Your task to perform on an android device: Show me the alarms in the clock app Image 0: 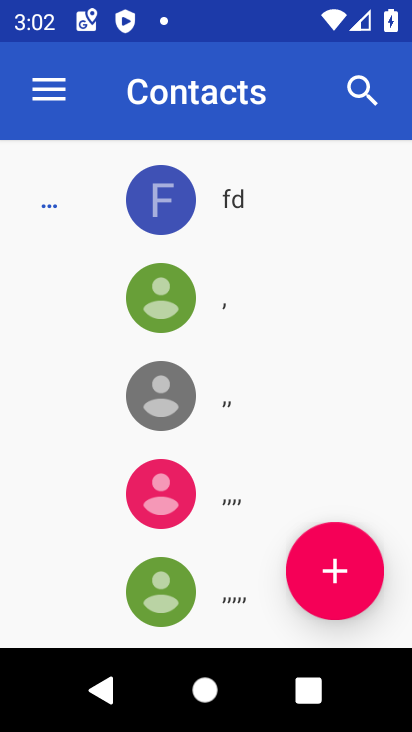
Step 0: press home button
Your task to perform on an android device: Show me the alarms in the clock app Image 1: 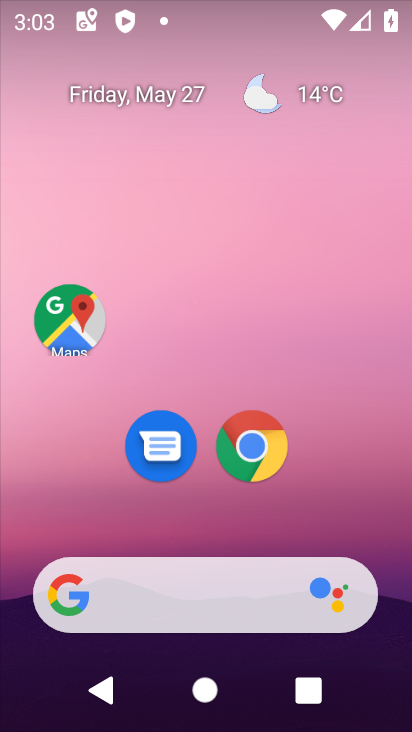
Step 1: drag from (189, 576) to (278, 143)
Your task to perform on an android device: Show me the alarms in the clock app Image 2: 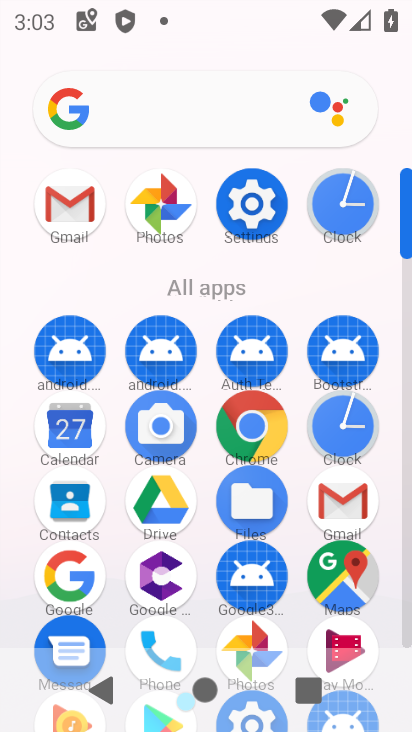
Step 2: click (334, 441)
Your task to perform on an android device: Show me the alarms in the clock app Image 3: 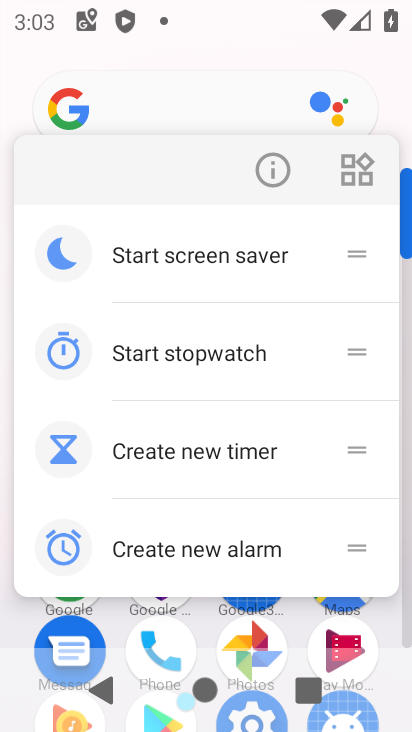
Step 3: drag from (244, 690) to (381, 149)
Your task to perform on an android device: Show me the alarms in the clock app Image 4: 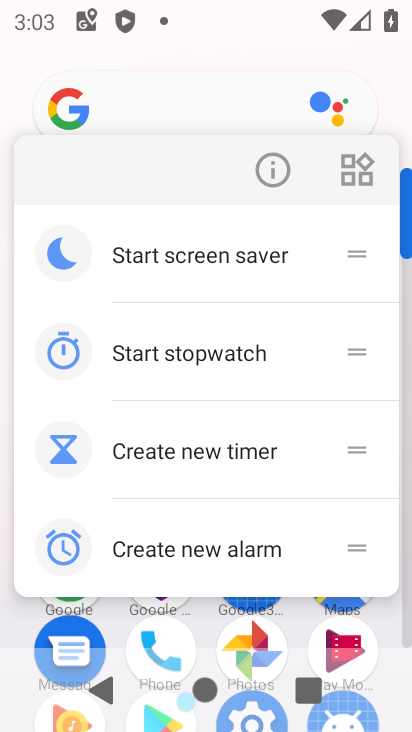
Step 4: press back button
Your task to perform on an android device: Show me the alarms in the clock app Image 5: 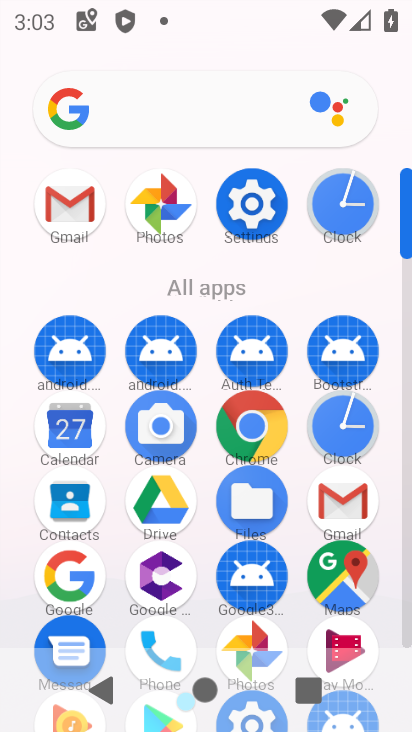
Step 5: click (339, 424)
Your task to perform on an android device: Show me the alarms in the clock app Image 6: 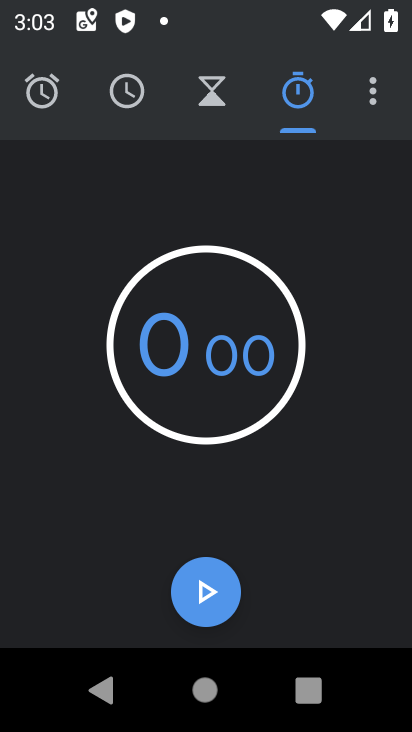
Step 6: click (37, 97)
Your task to perform on an android device: Show me the alarms in the clock app Image 7: 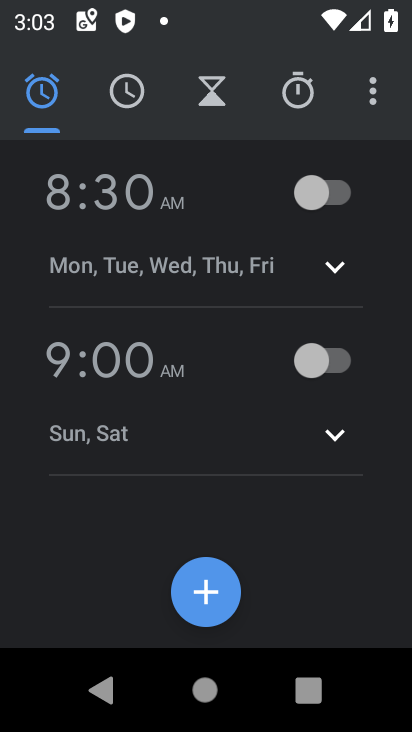
Step 7: task complete